Your task to perform on an android device: Open Yahoo.com Image 0: 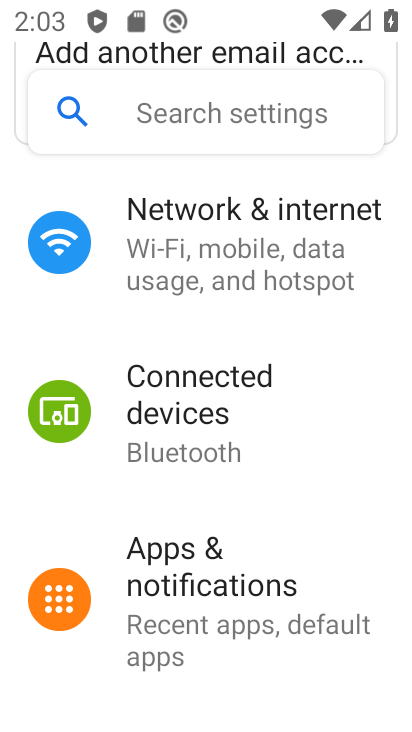
Step 0: press home button
Your task to perform on an android device: Open Yahoo.com Image 1: 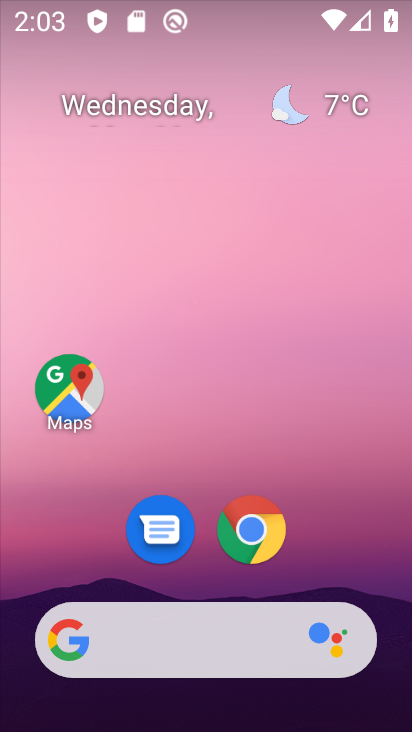
Step 1: click (249, 527)
Your task to perform on an android device: Open Yahoo.com Image 2: 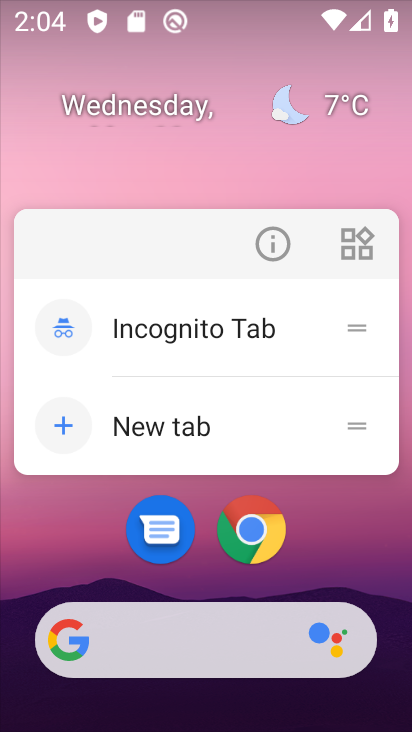
Step 2: click (255, 523)
Your task to perform on an android device: Open Yahoo.com Image 3: 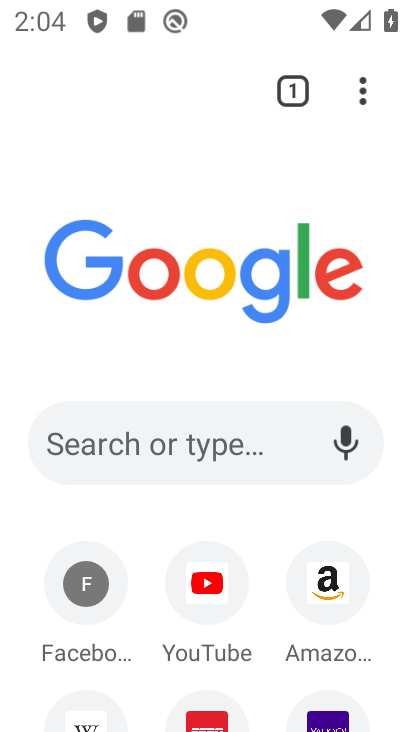
Step 3: click (343, 709)
Your task to perform on an android device: Open Yahoo.com Image 4: 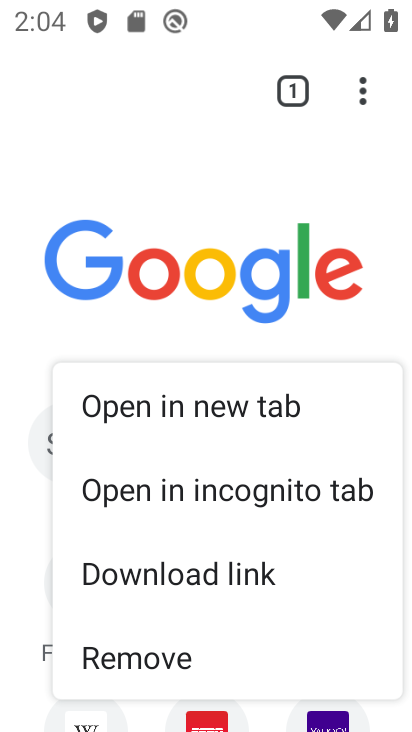
Step 4: click (330, 722)
Your task to perform on an android device: Open Yahoo.com Image 5: 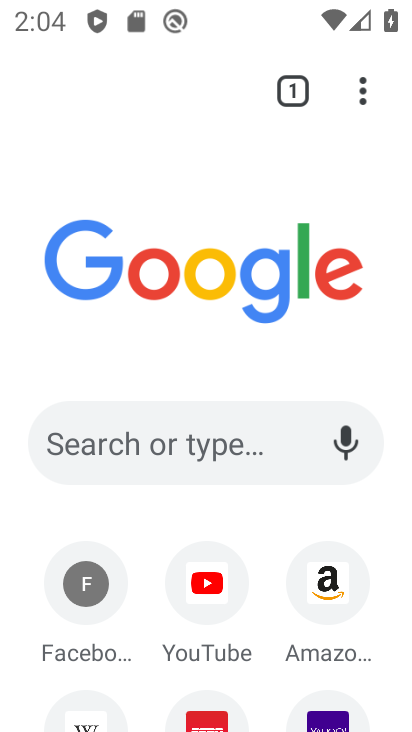
Step 5: click (329, 712)
Your task to perform on an android device: Open Yahoo.com Image 6: 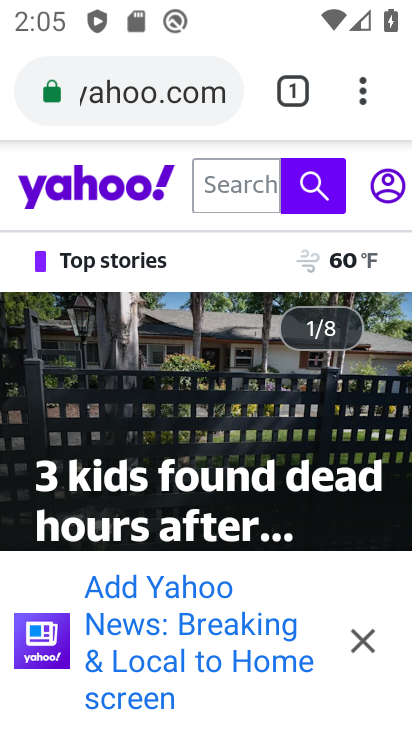
Step 6: task complete